Your task to perform on an android device: turn on priority inbox in the gmail app Image 0: 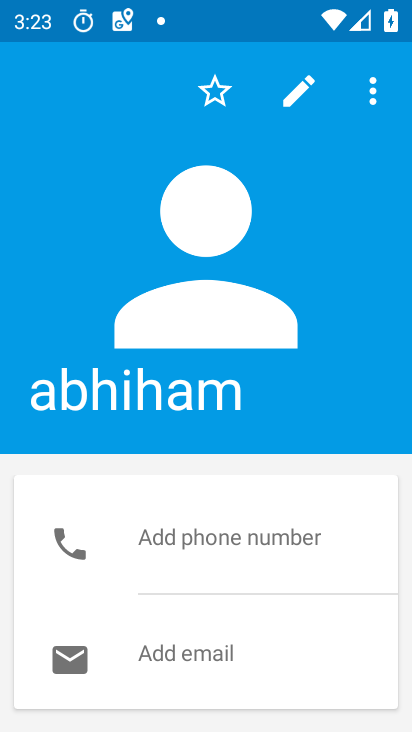
Step 0: press home button
Your task to perform on an android device: turn on priority inbox in the gmail app Image 1: 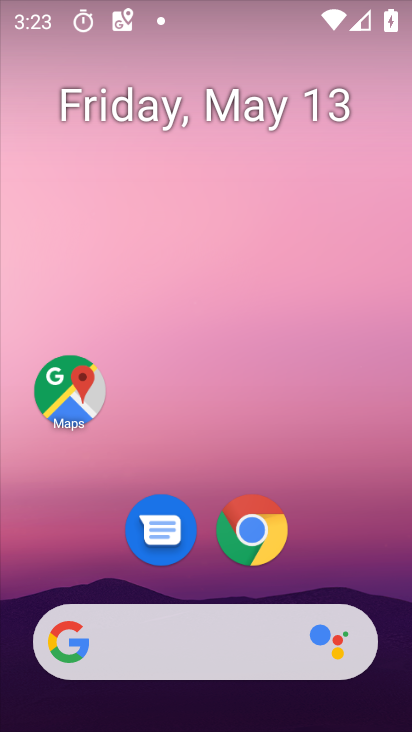
Step 1: drag from (406, 585) to (298, 76)
Your task to perform on an android device: turn on priority inbox in the gmail app Image 2: 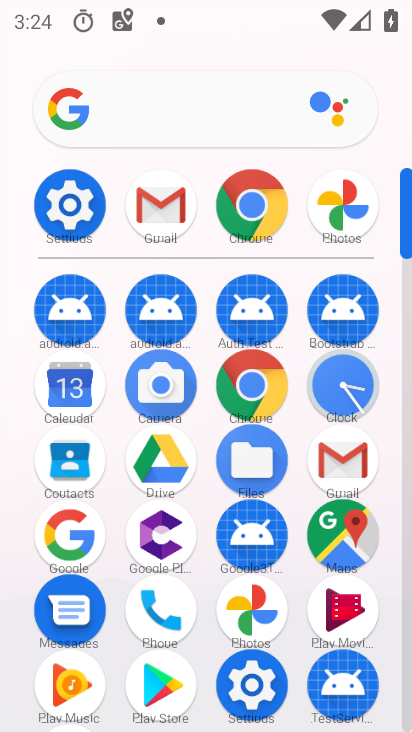
Step 2: click (177, 221)
Your task to perform on an android device: turn on priority inbox in the gmail app Image 3: 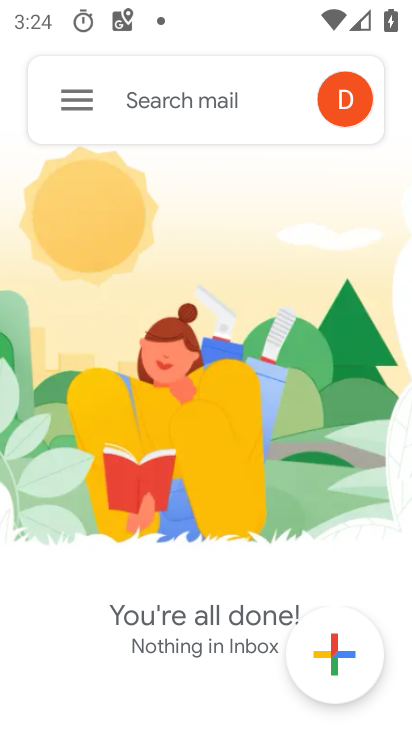
Step 3: click (80, 107)
Your task to perform on an android device: turn on priority inbox in the gmail app Image 4: 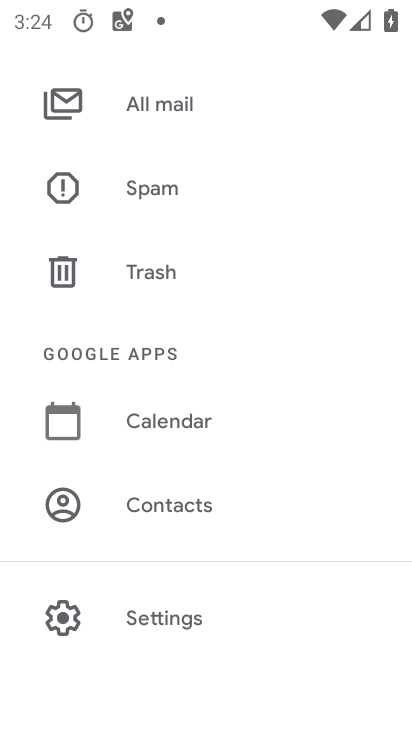
Step 4: drag from (233, 624) to (242, 206)
Your task to perform on an android device: turn on priority inbox in the gmail app Image 5: 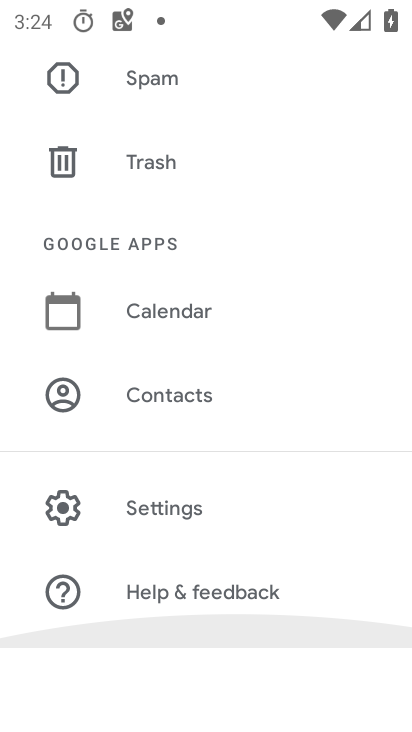
Step 5: drag from (248, 182) to (230, 680)
Your task to perform on an android device: turn on priority inbox in the gmail app Image 6: 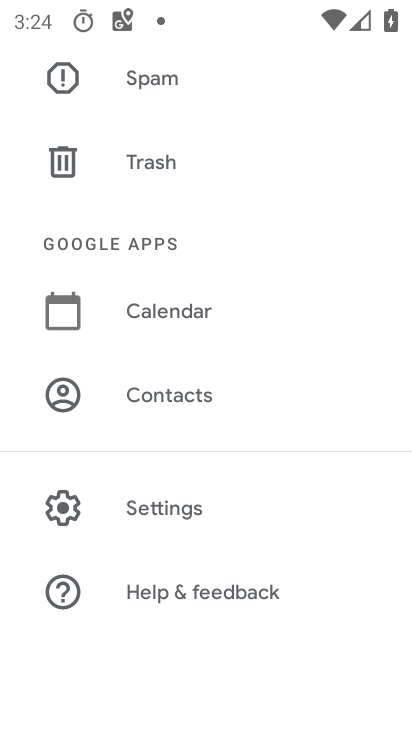
Step 6: drag from (220, 205) to (203, 647)
Your task to perform on an android device: turn on priority inbox in the gmail app Image 7: 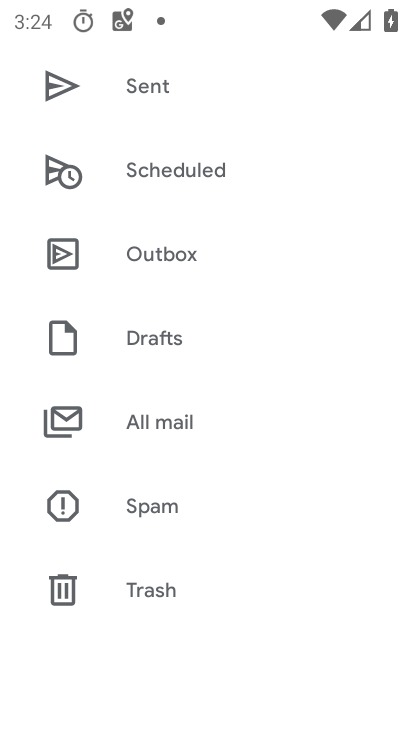
Step 7: drag from (175, 239) to (191, 700)
Your task to perform on an android device: turn on priority inbox in the gmail app Image 8: 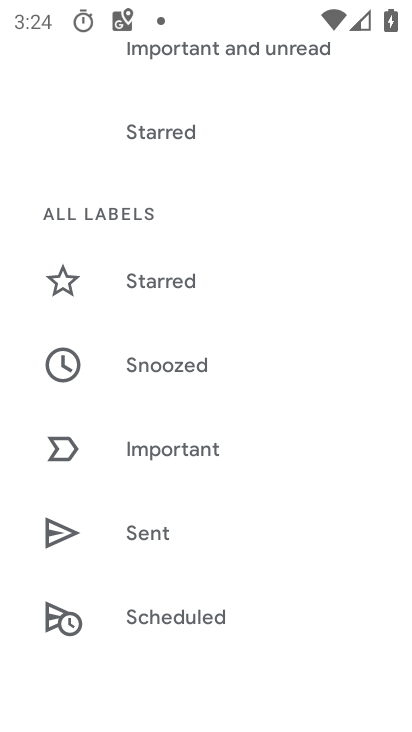
Step 8: drag from (179, 276) to (174, 607)
Your task to perform on an android device: turn on priority inbox in the gmail app Image 9: 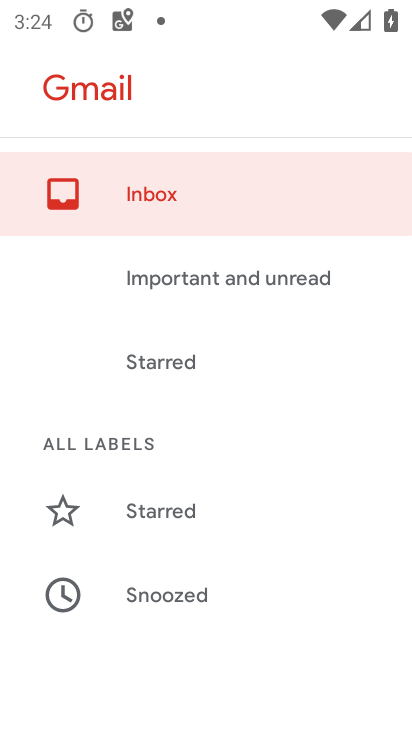
Step 9: drag from (228, 536) to (278, 102)
Your task to perform on an android device: turn on priority inbox in the gmail app Image 10: 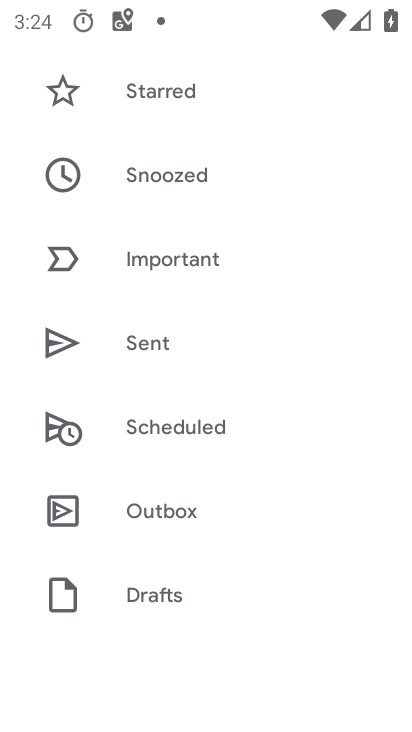
Step 10: drag from (212, 577) to (274, 29)
Your task to perform on an android device: turn on priority inbox in the gmail app Image 11: 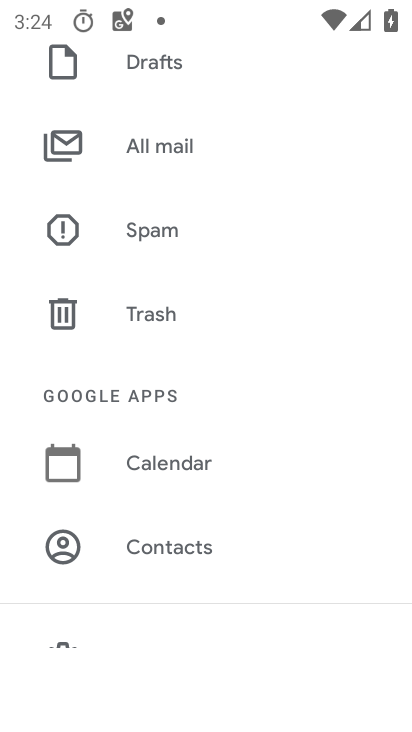
Step 11: drag from (187, 566) to (298, 159)
Your task to perform on an android device: turn on priority inbox in the gmail app Image 12: 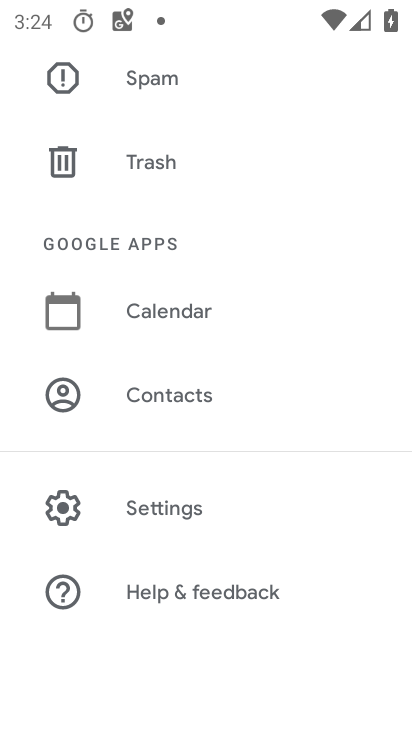
Step 12: click (187, 513)
Your task to perform on an android device: turn on priority inbox in the gmail app Image 13: 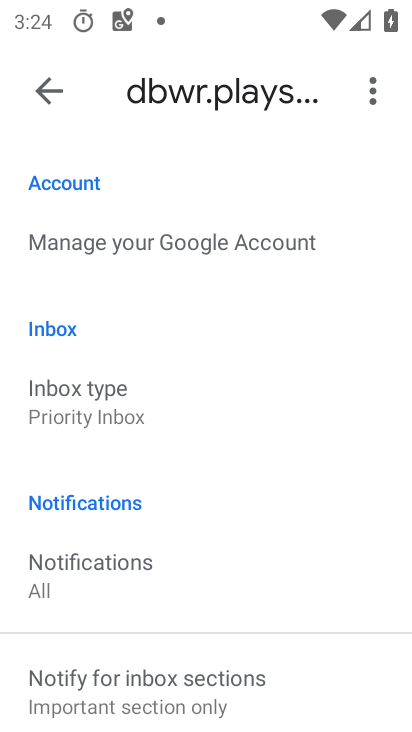
Step 13: click (76, 401)
Your task to perform on an android device: turn on priority inbox in the gmail app Image 14: 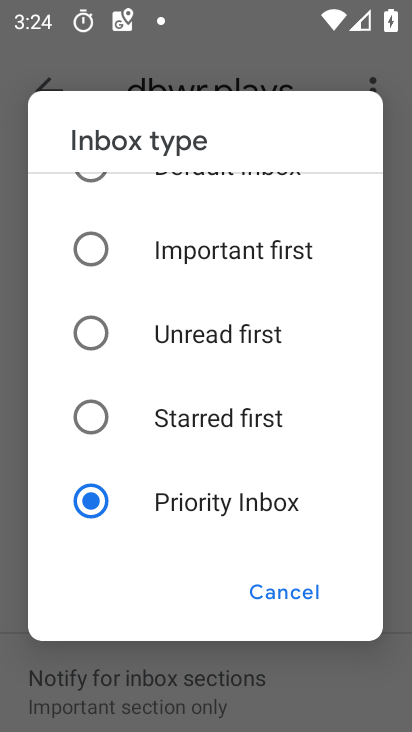
Step 14: task complete